Your task to perform on an android device: When is my next meeting? Image 0: 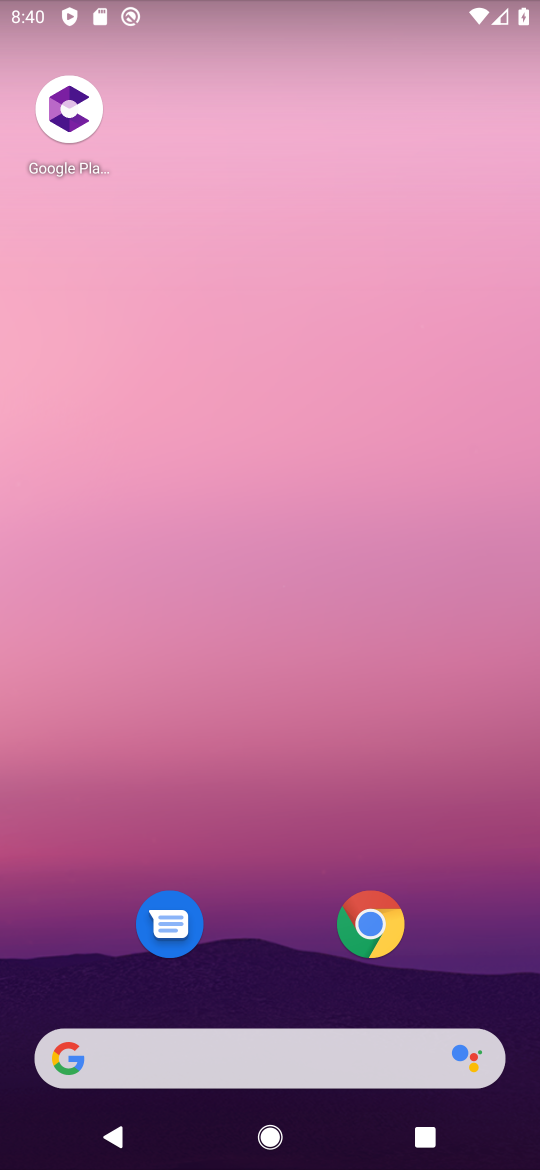
Step 0: drag from (269, 785) to (332, 125)
Your task to perform on an android device: When is my next meeting? Image 1: 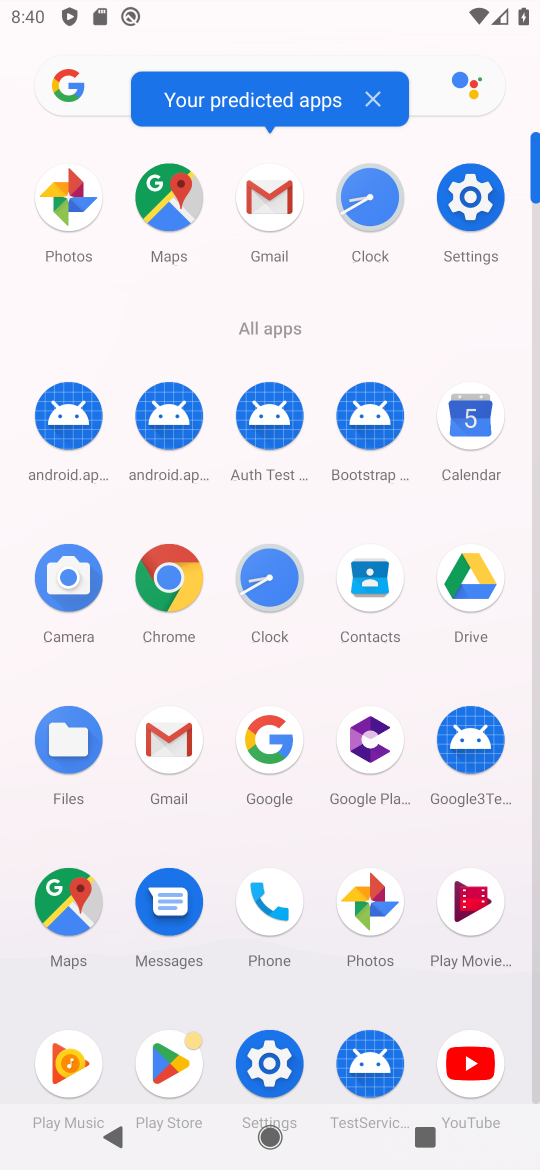
Step 1: click (475, 425)
Your task to perform on an android device: When is my next meeting? Image 2: 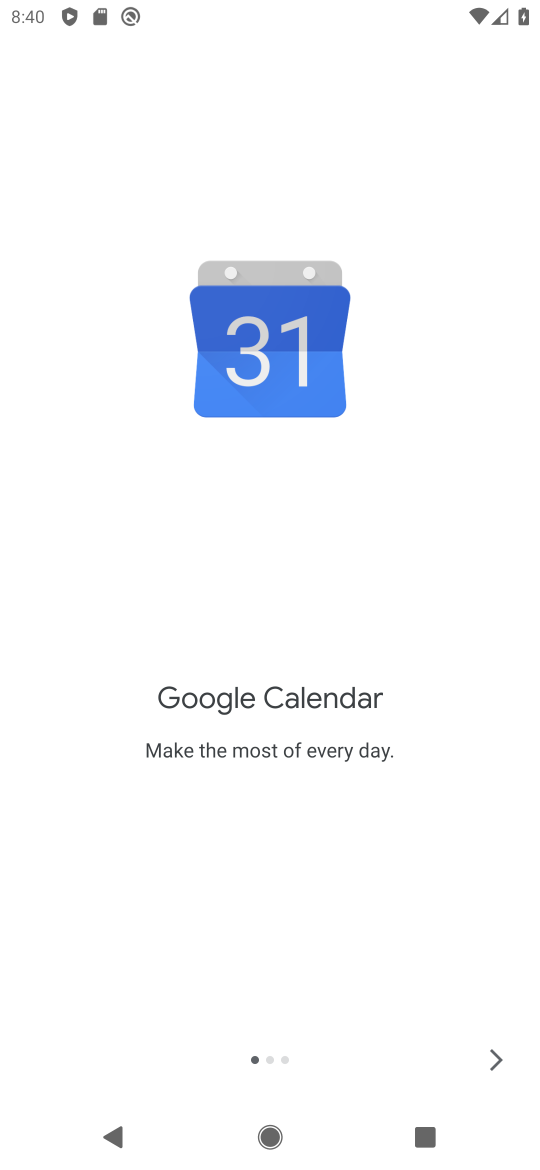
Step 2: click (493, 1045)
Your task to perform on an android device: When is my next meeting? Image 3: 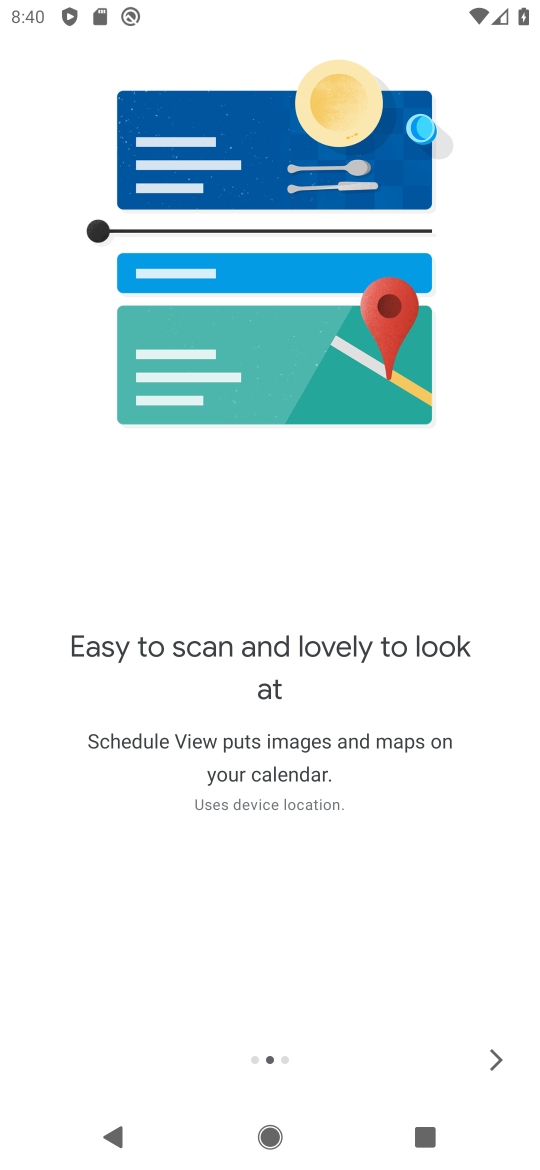
Step 3: click (493, 1054)
Your task to perform on an android device: When is my next meeting? Image 4: 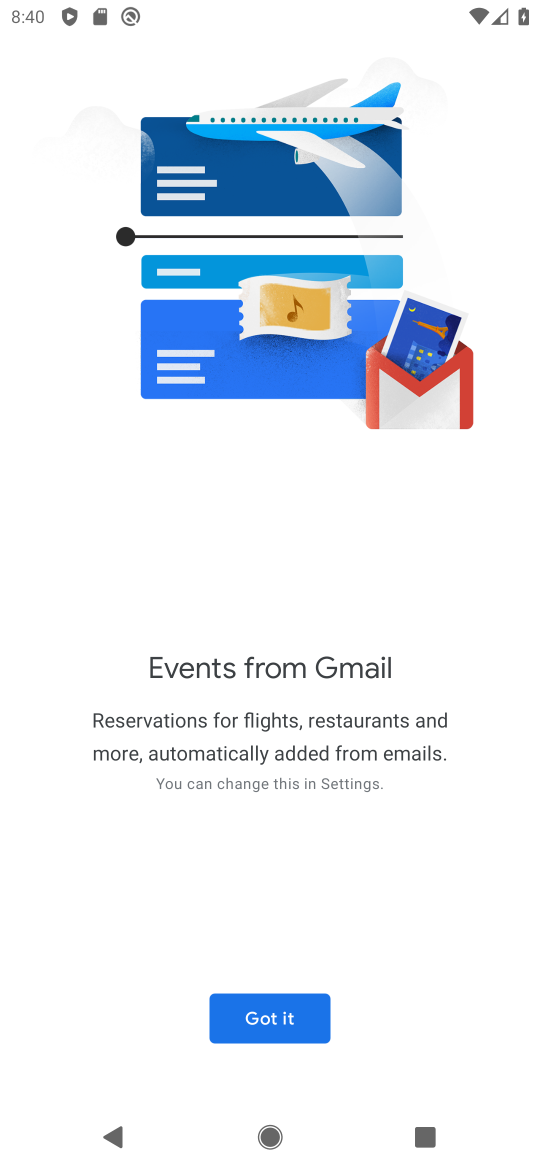
Step 4: click (276, 1015)
Your task to perform on an android device: When is my next meeting? Image 5: 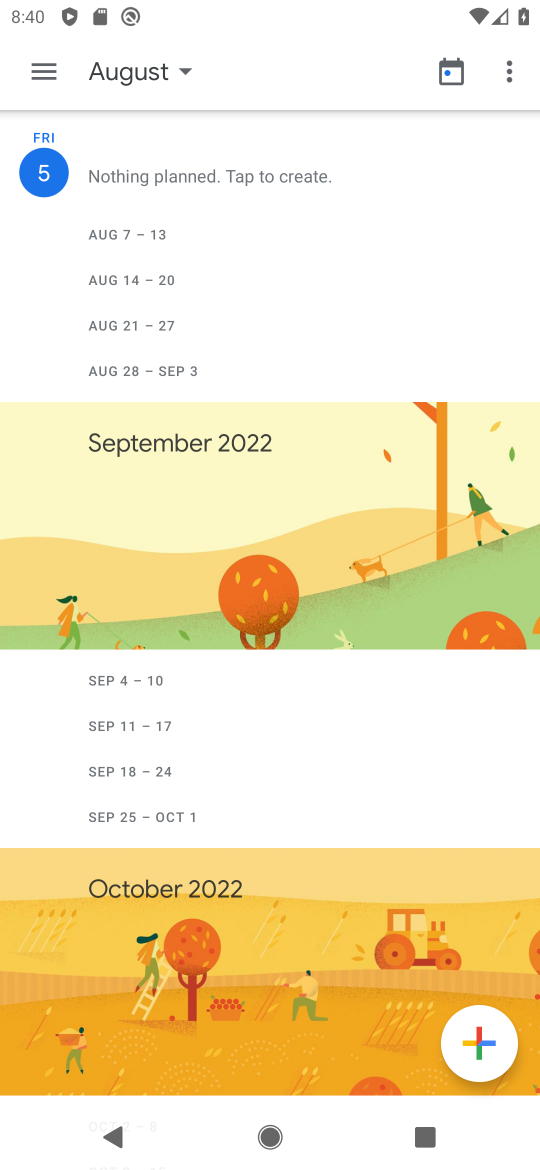
Step 5: task complete